Your task to perform on an android device: Turn off the flashlight Image 0: 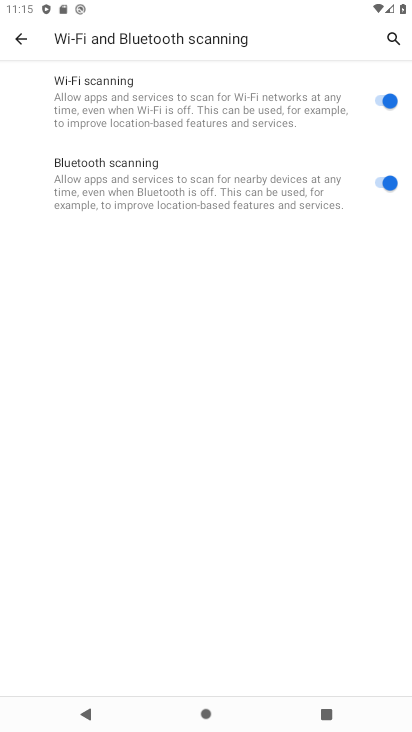
Step 0: press home button
Your task to perform on an android device: Turn off the flashlight Image 1: 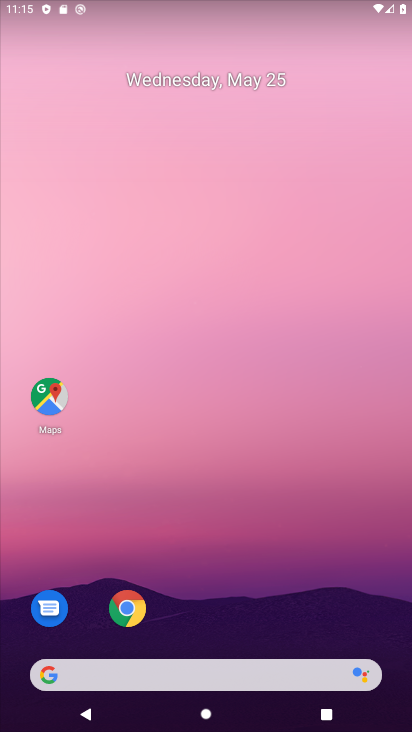
Step 1: drag from (215, 639) to (165, 85)
Your task to perform on an android device: Turn off the flashlight Image 2: 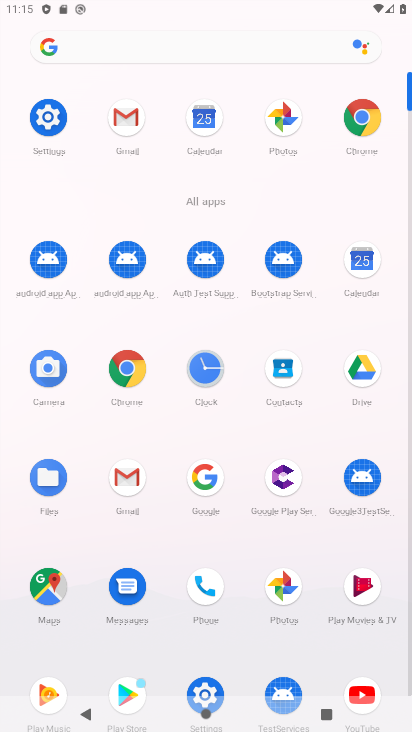
Step 2: click (36, 116)
Your task to perform on an android device: Turn off the flashlight Image 3: 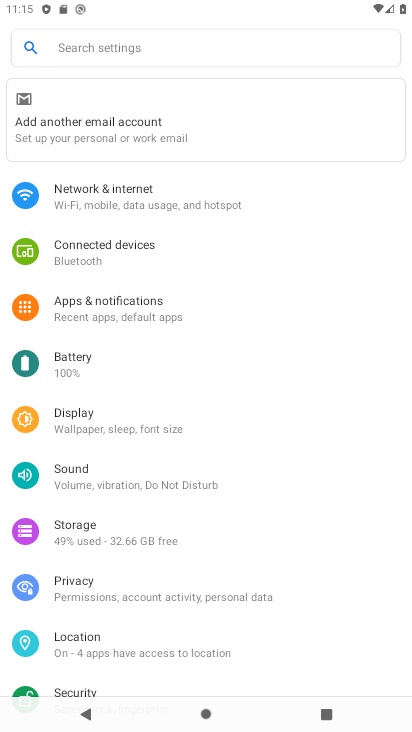
Step 3: task complete